Your task to perform on an android device: find snoozed emails in the gmail app Image 0: 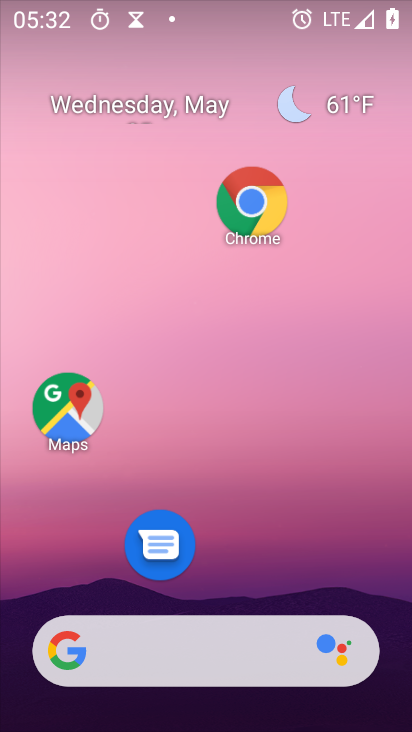
Step 0: press home button
Your task to perform on an android device: find snoozed emails in the gmail app Image 1: 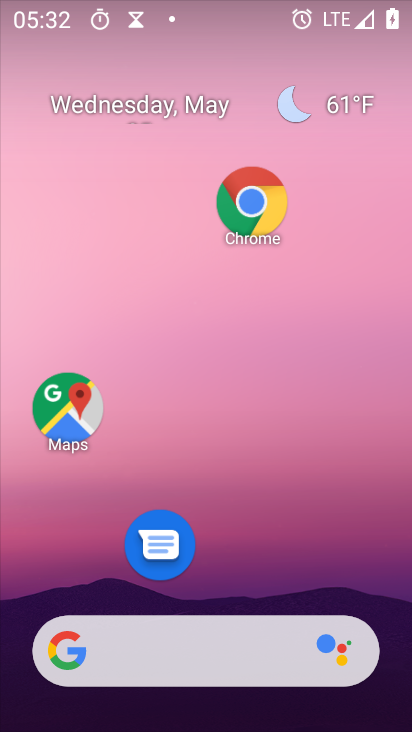
Step 1: drag from (231, 627) to (224, 226)
Your task to perform on an android device: find snoozed emails in the gmail app Image 2: 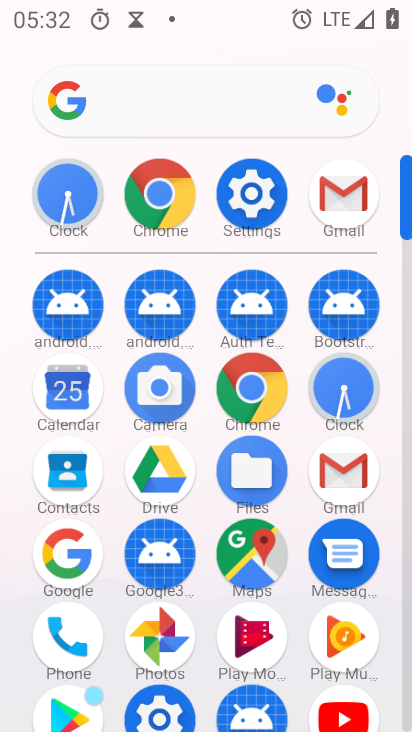
Step 2: click (323, 483)
Your task to perform on an android device: find snoozed emails in the gmail app Image 3: 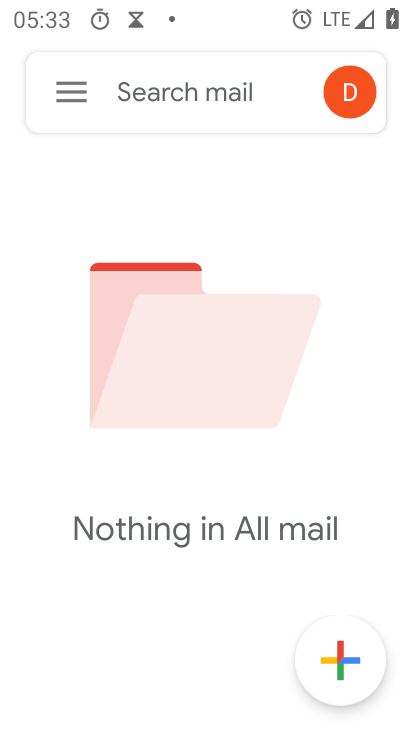
Step 3: click (63, 96)
Your task to perform on an android device: find snoozed emails in the gmail app Image 4: 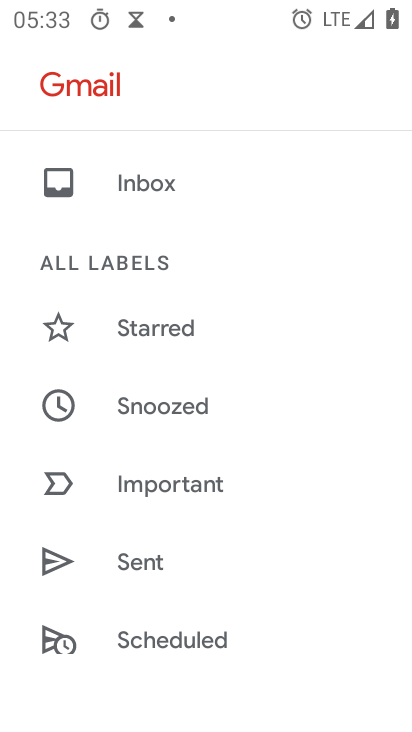
Step 4: click (186, 408)
Your task to perform on an android device: find snoozed emails in the gmail app Image 5: 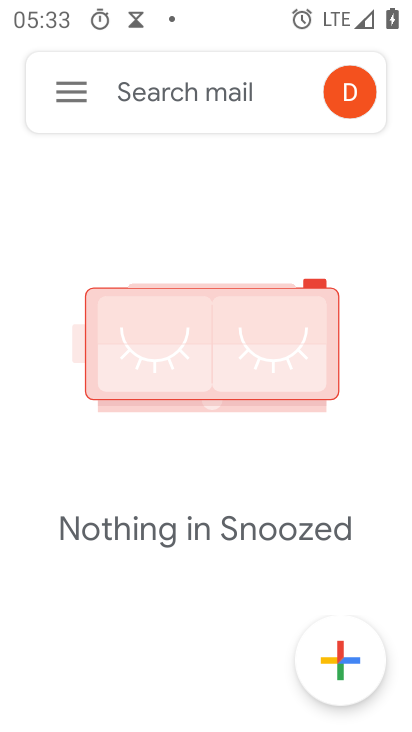
Step 5: task complete